Your task to perform on an android device: Go to Google Image 0: 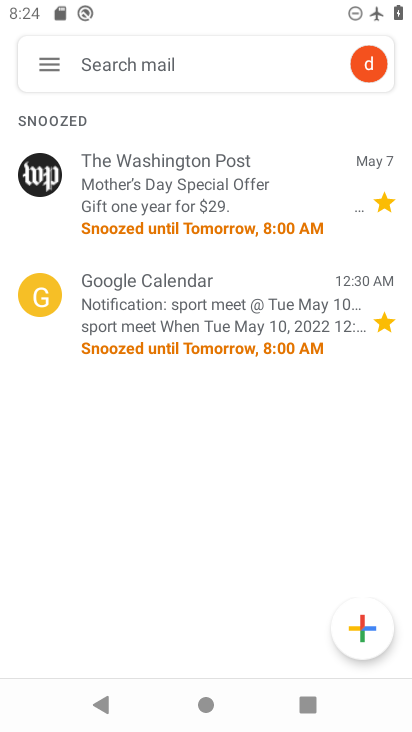
Step 0: press home button
Your task to perform on an android device: Go to Google Image 1: 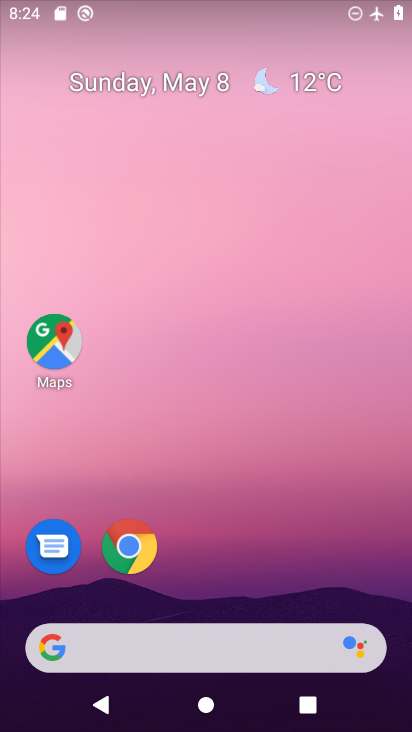
Step 1: click (137, 645)
Your task to perform on an android device: Go to Google Image 2: 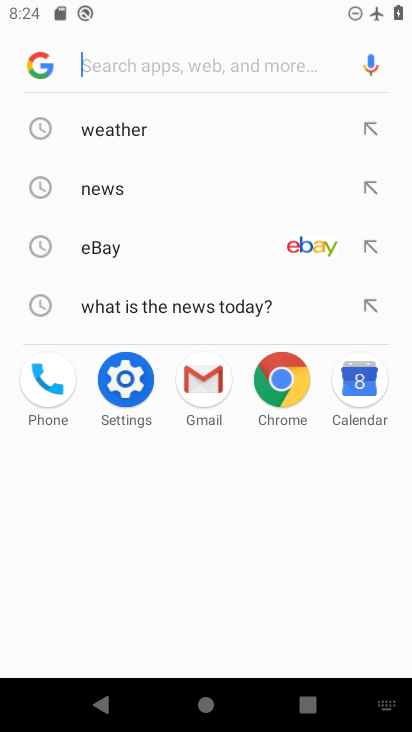
Step 2: click (40, 52)
Your task to perform on an android device: Go to Google Image 3: 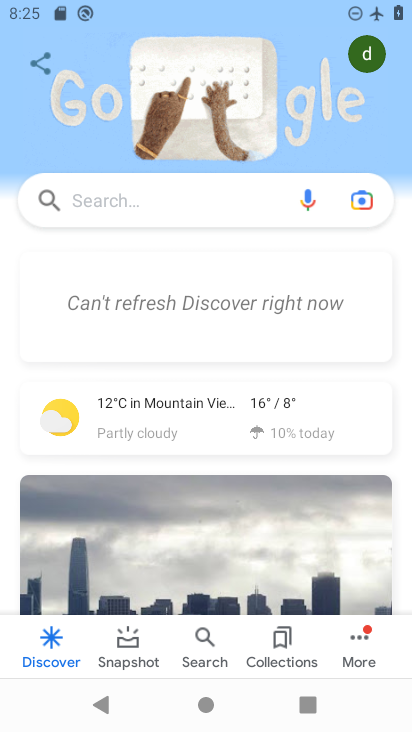
Step 3: task complete